Your task to perform on an android device: turn off picture-in-picture Image 0: 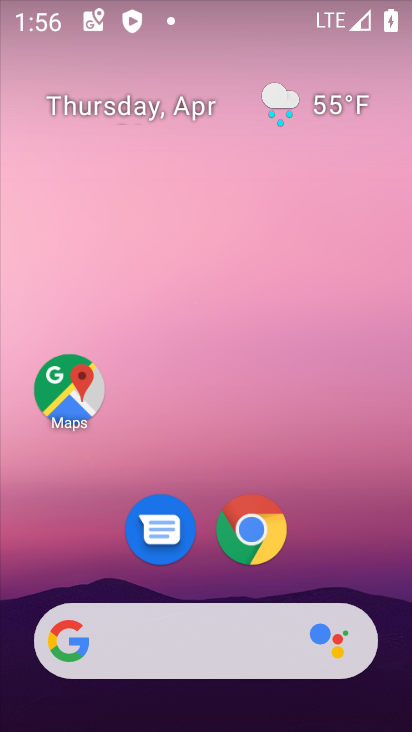
Step 0: drag from (117, 424) to (245, 224)
Your task to perform on an android device: turn off picture-in-picture Image 1: 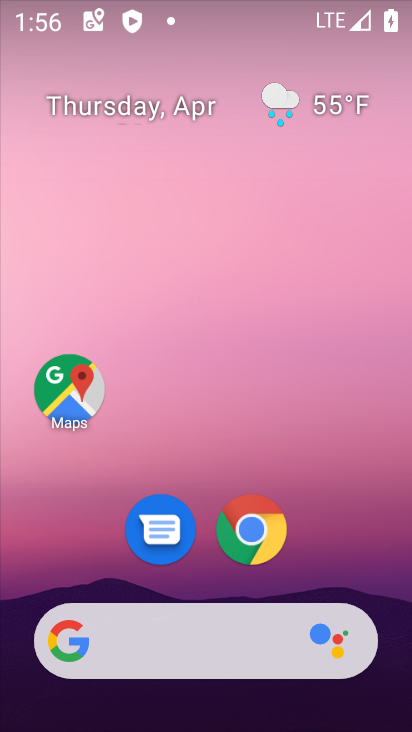
Step 1: drag from (132, 411) to (307, 148)
Your task to perform on an android device: turn off picture-in-picture Image 2: 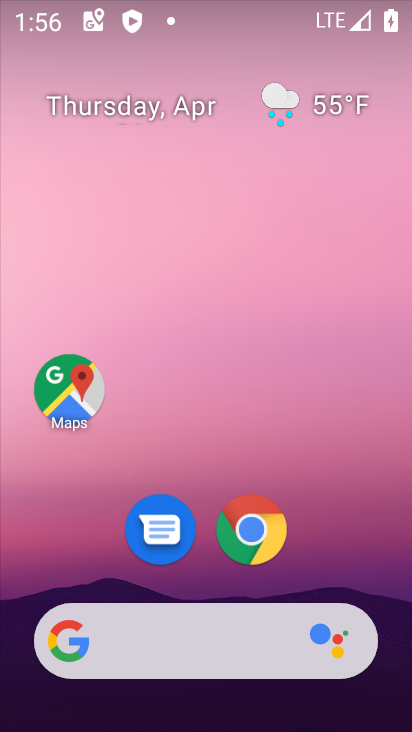
Step 2: drag from (12, 544) to (198, 213)
Your task to perform on an android device: turn off picture-in-picture Image 3: 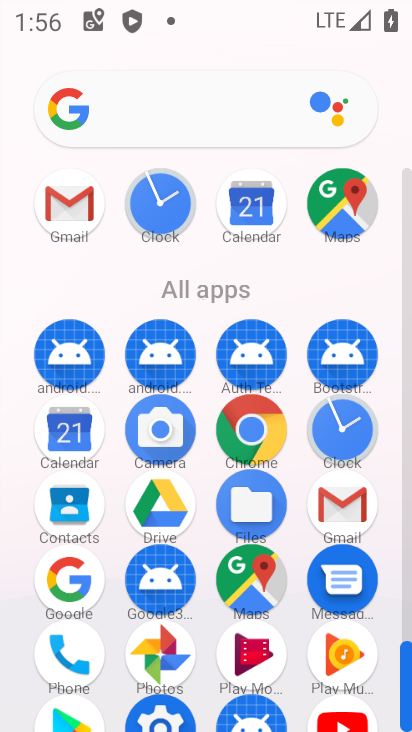
Step 3: click (153, 699)
Your task to perform on an android device: turn off picture-in-picture Image 4: 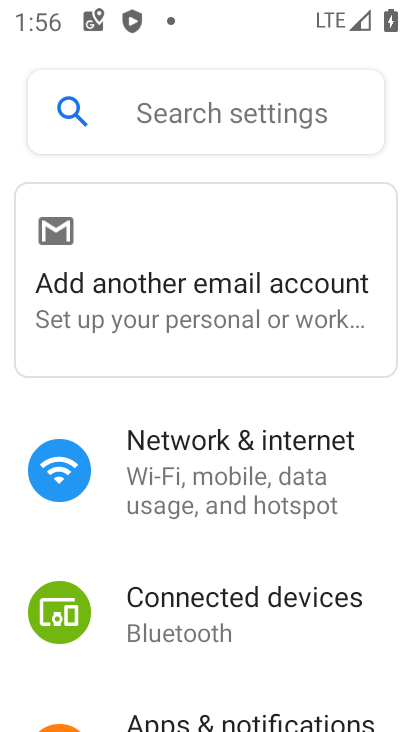
Step 4: drag from (171, 703) to (282, 302)
Your task to perform on an android device: turn off picture-in-picture Image 5: 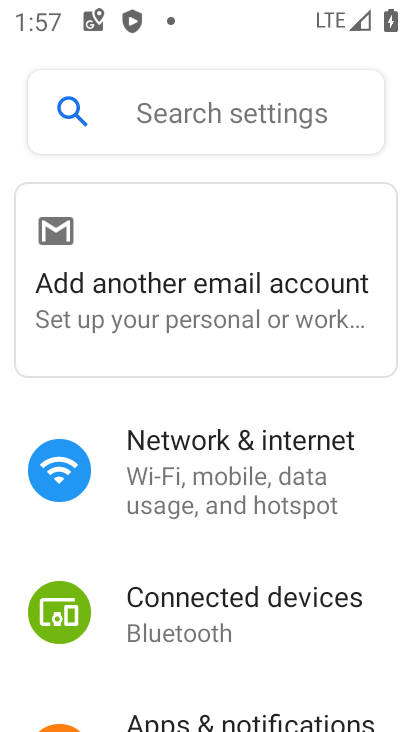
Step 5: drag from (52, 643) to (231, 202)
Your task to perform on an android device: turn off picture-in-picture Image 6: 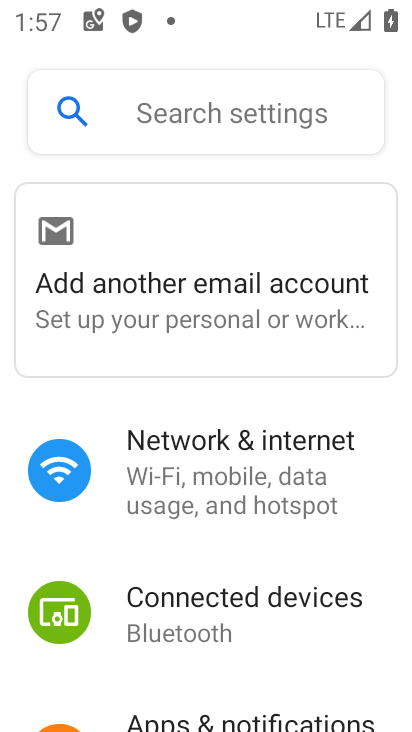
Step 6: drag from (139, 673) to (347, 302)
Your task to perform on an android device: turn off picture-in-picture Image 7: 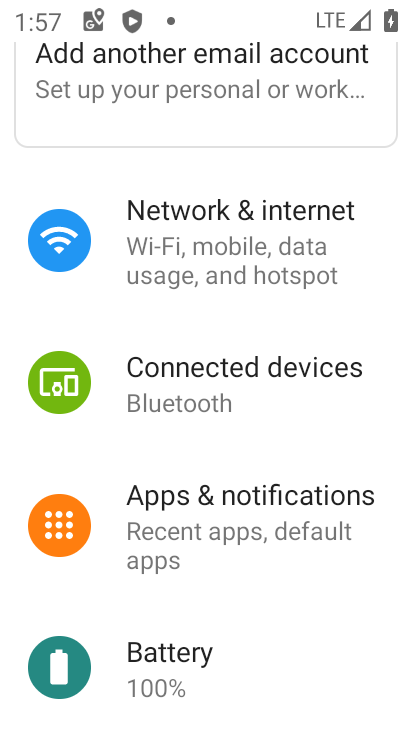
Step 7: drag from (245, 650) to (315, 184)
Your task to perform on an android device: turn off picture-in-picture Image 8: 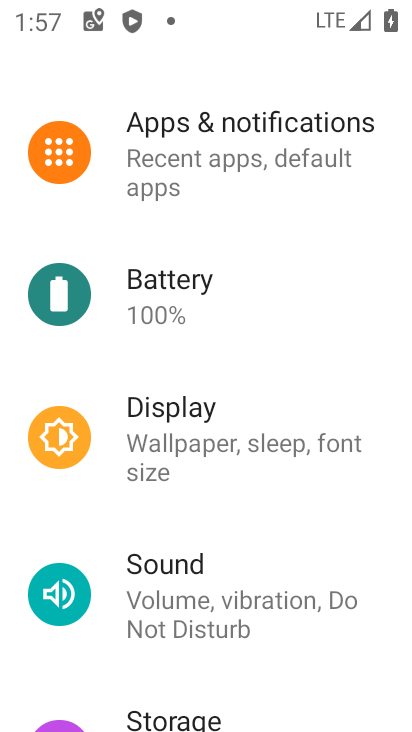
Step 8: drag from (167, 725) to (222, 345)
Your task to perform on an android device: turn off picture-in-picture Image 9: 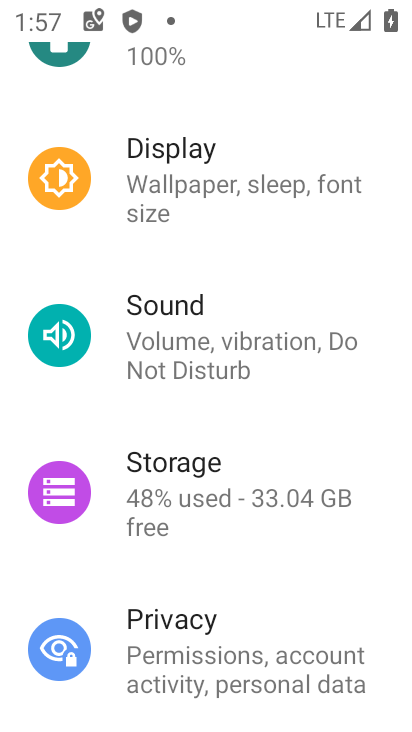
Step 9: drag from (252, 221) to (244, 538)
Your task to perform on an android device: turn off picture-in-picture Image 10: 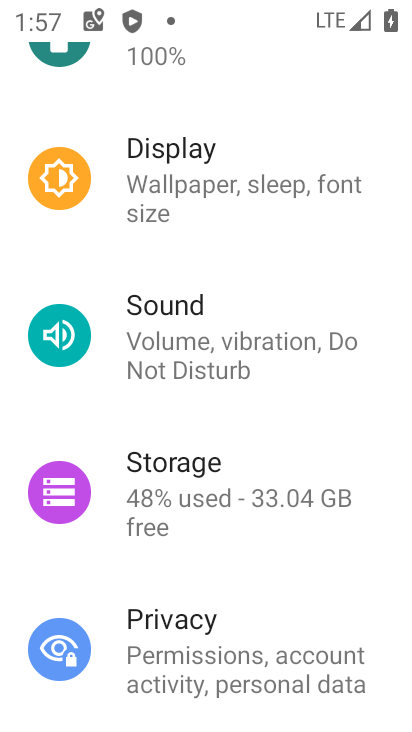
Step 10: drag from (260, 206) to (209, 546)
Your task to perform on an android device: turn off picture-in-picture Image 11: 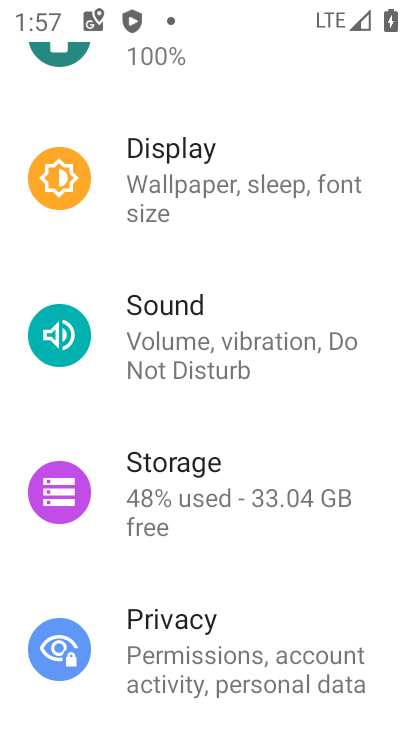
Step 11: drag from (268, 226) to (243, 590)
Your task to perform on an android device: turn off picture-in-picture Image 12: 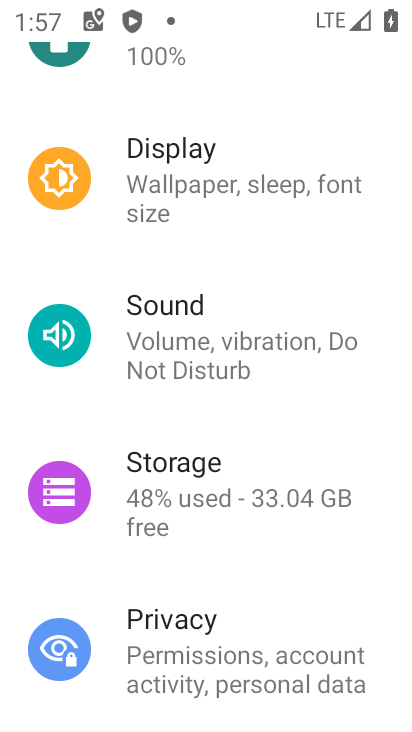
Step 12: drag from (359, 144) to (286, 515)
Your task to perform on an android device: turn off picture-in-picture Image 13: 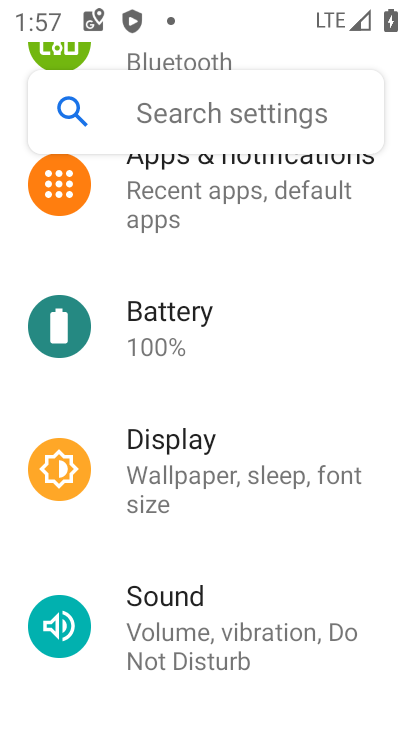
Step 13: click (254, 183)
Your task to perform on an android device: turn off picture-in-picture Image 14: 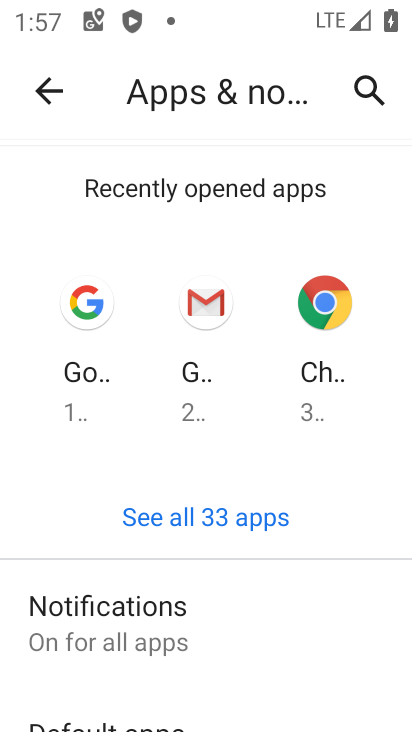
Step 14: click (145, 607)
Your task to perform on an android device: turn off picture-in-picture Image 15: 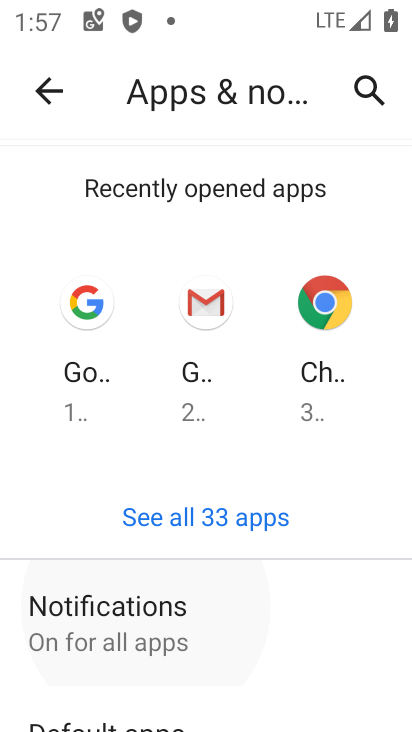
Step 15: drag from (147, 631) to (258, 248)
Your task to perform on an android device: turn off picture-in-picture Image 16: 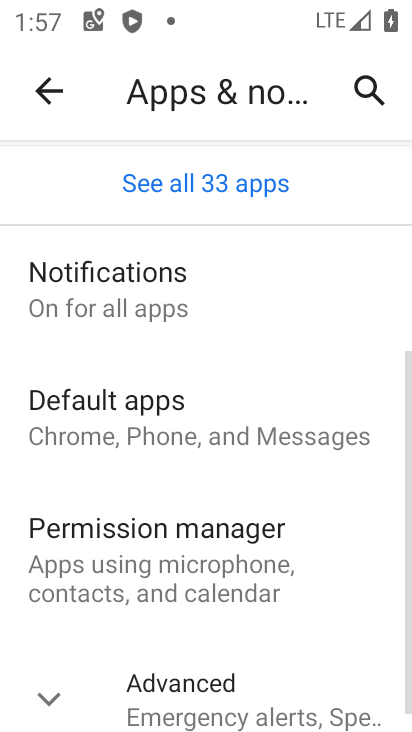
Step 16: drag from (195, 553) to (311, 234)
Your task to perform on an android device: turn off picture-in-picture Image 17: 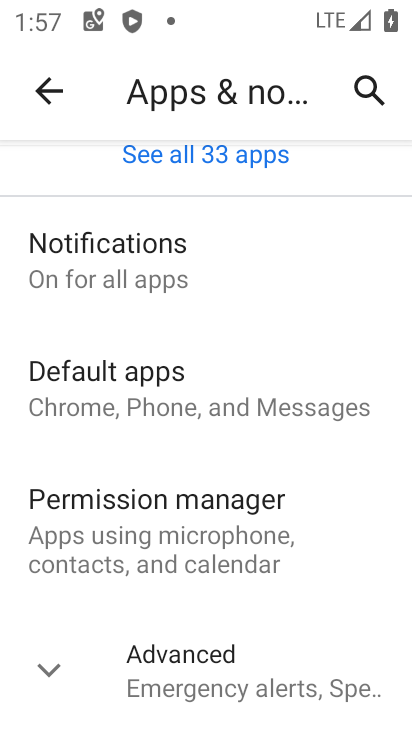
Step 17: click (191, 675)
Your task to perform on an android device: turn off picture-in-picture Image 18: 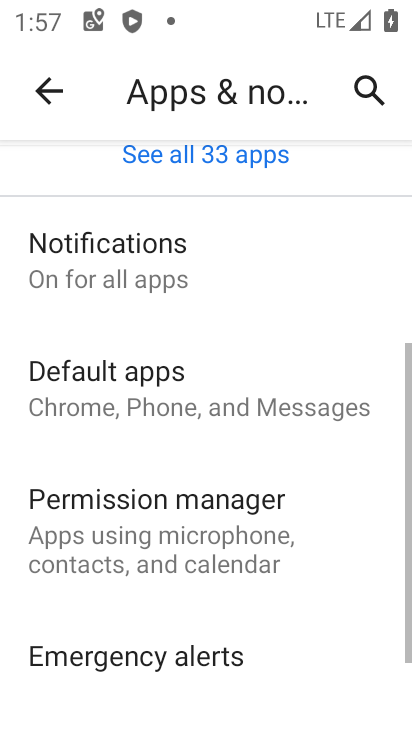
Step 18: drag from (140, 720) to (280, 386)
Your task to perform on an android device: turn off picture-in-picture Image 19: 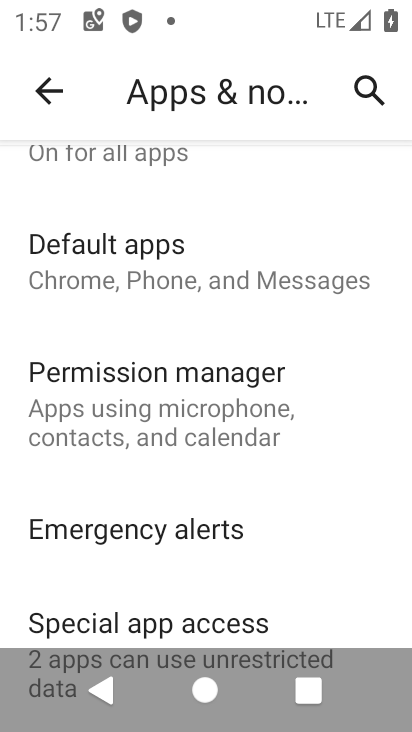
Step 19: drag from (207, 572) to (308, 165)
Your task to perform on an android device: turn off picture-in-picture Image 20: 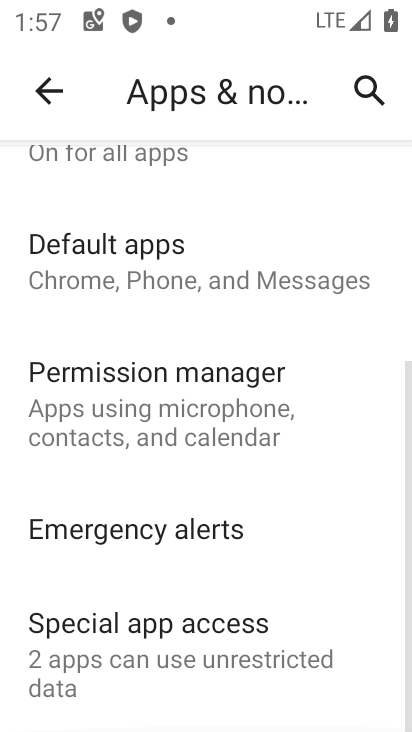
Step 20: drag from (219, 564) to (319, 254)
Your task to perform on an android device: turn off picture-in-picture Image 21: 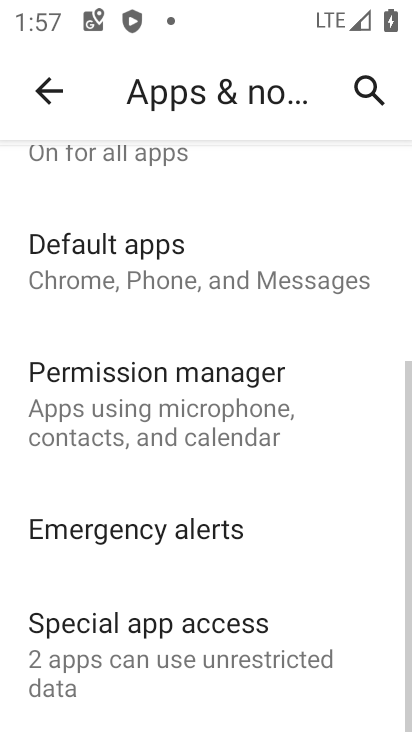
Step 21: drag from (251, 354) to (150, 648)
Your task to perform on an android device: turn off picture-in-picture Image 22: 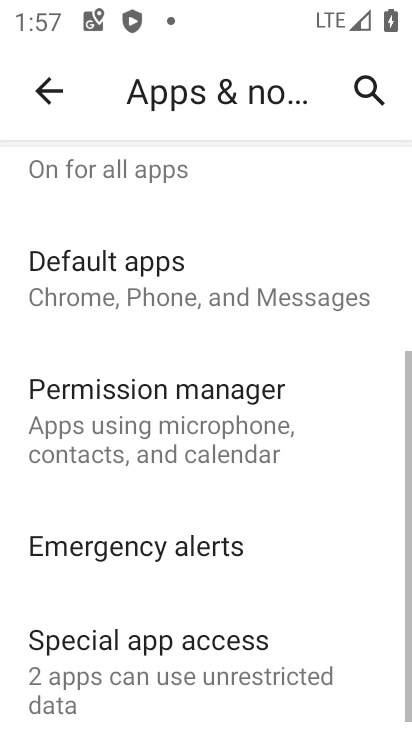
Step 22: drag from (251, 265) to (177, 664)
Your task to perform on an android device: turn off picture-in-picture Image 23: 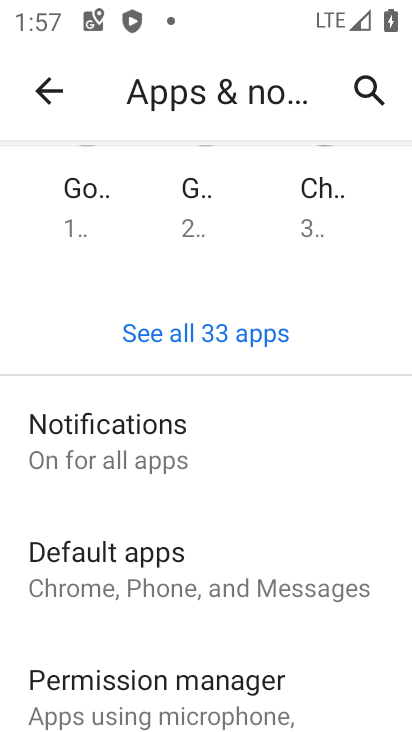
Step 23: drag from (199, 553) to (279, 313)
Your task to perform on an android device: turn off picture-in-picture Image 24: 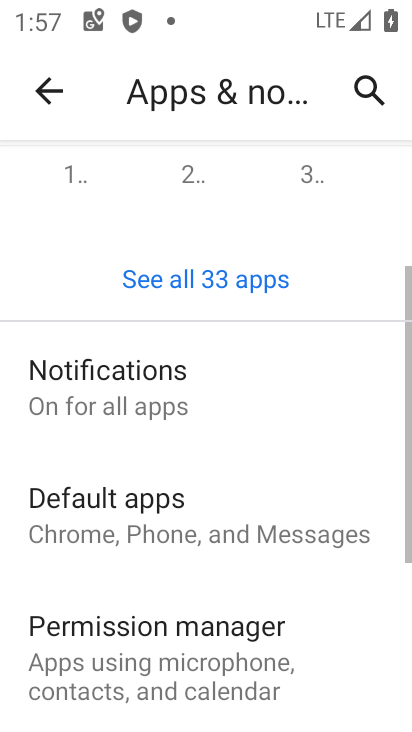
Step 24: drag from (225, 498) to (302, 261)
Your task to perform on an android device: turn off picture-in-picture Image 25: 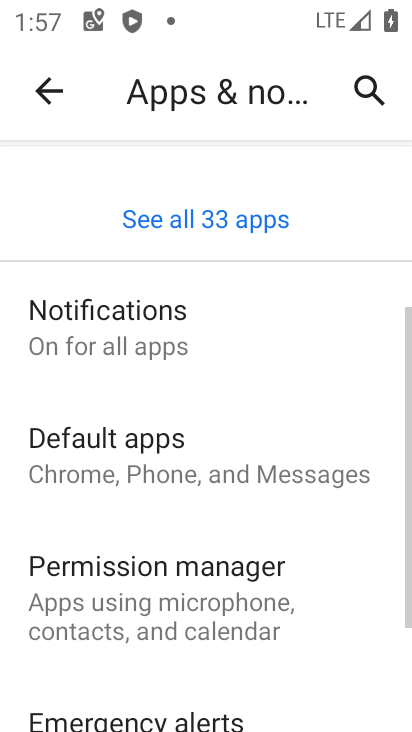
Step 25: drag from (176, 655) to (291, 337)
Your task to perform on an android device: turn off picture-in-picture Image 26: 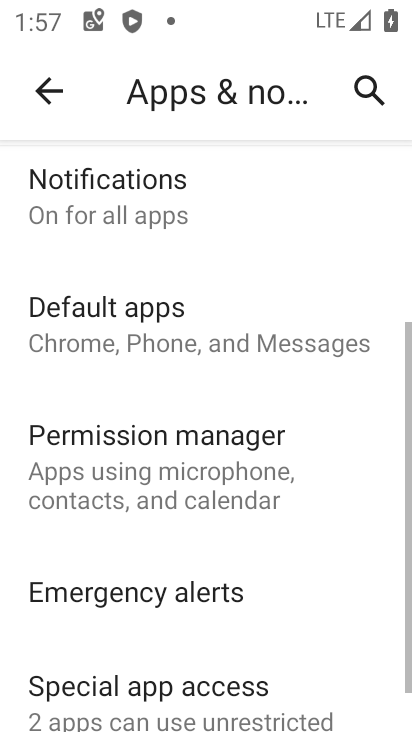
Step 26: drag from (237, 435) to (305, 214)
Your task to perform on an android device: turn off picture-in-picture Image 27: 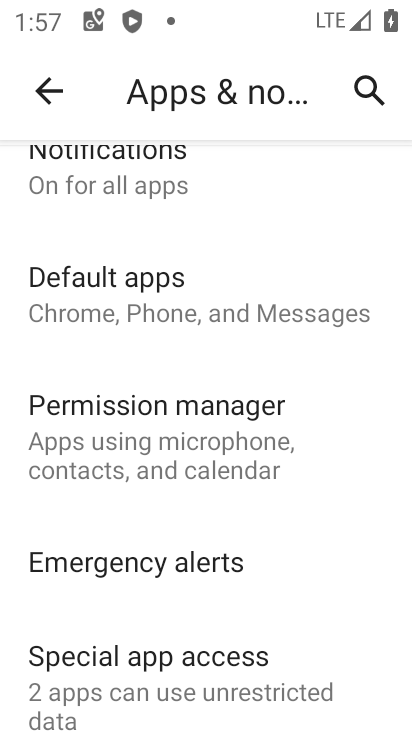
Step 27: click (220, 675)
Your task to perform on an android device: turn off picture-in-picture Image 28: 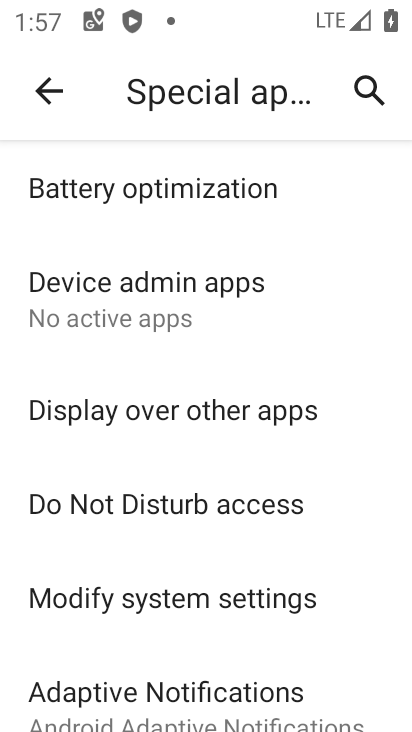
Step 28: drag from (120, 629) to (287, 311)
Your task to perform on an android device: turn off picture-in-picture Image 29: 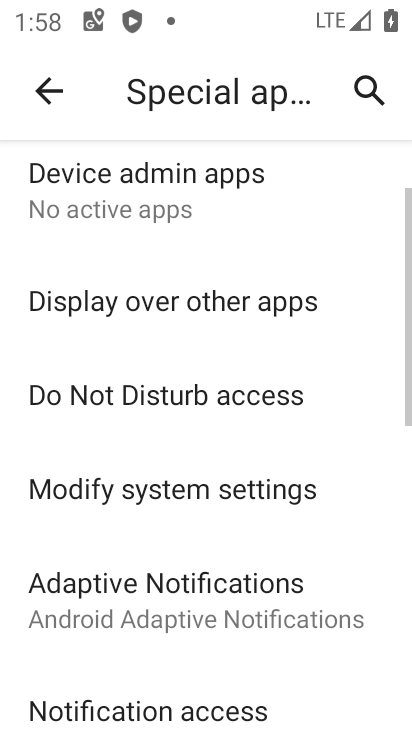
Step 29: drag from (191, 597) to (329, 302)
Your task to perform on an android device: turn off picture-in-picture Image 30: 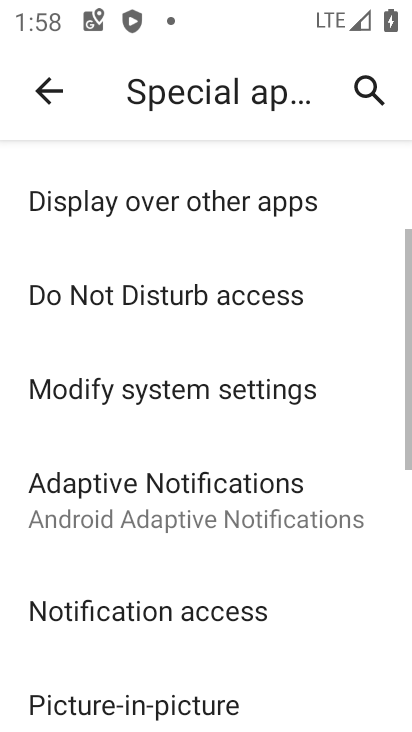
Step 30: drag from (256, 434) to (297, 305)
Your task to perform on an android device: turn off picture-in-picture Image 31: 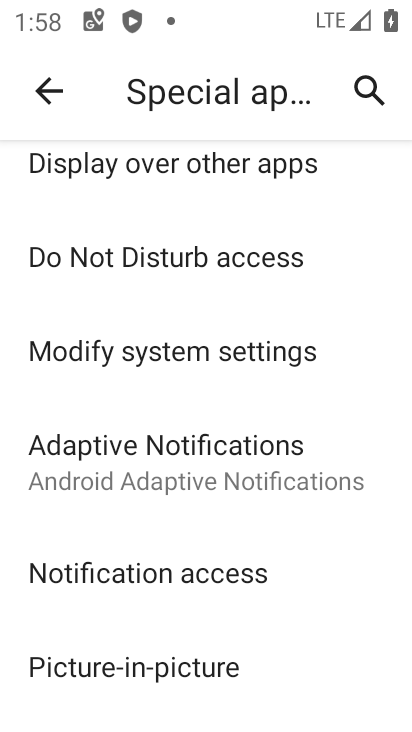
Step 31: click (194, 676)
Your task to perform on an android device: turn off picture-in-picture Image 32: 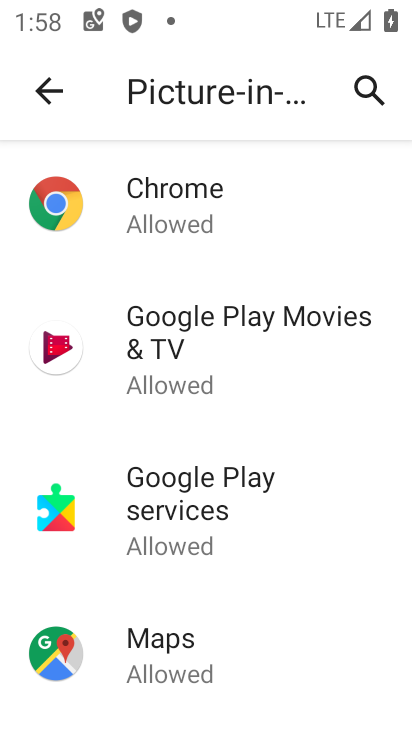
Step 32: click (213, 209)
Your task to perform on an android device: turn off picture-in-picture Image 33: 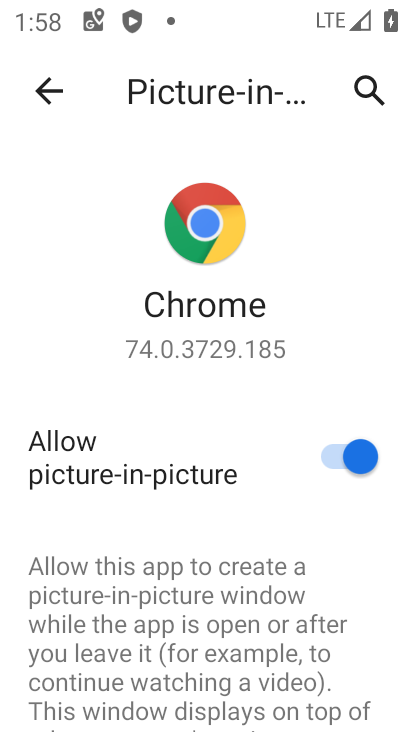
Step 33: click (374, 455)
Your task to perform on an android device: turn off picture-in-picture Image 34: 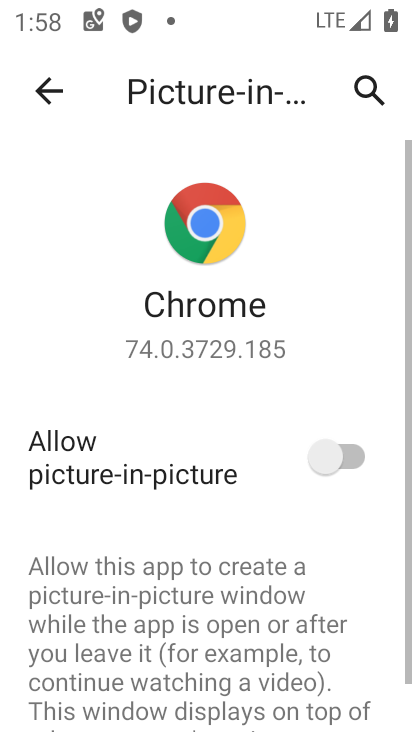
Step 34: task complete